Your task to perform on an android device: Open Maps and search for coffee Image 0: 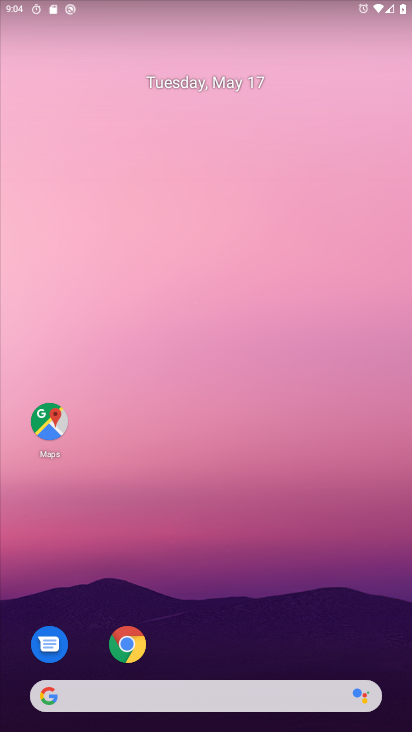
Step 0: click (48, 419)
Your task to perform on an android device: Open Maps and search for coffee Image 1: 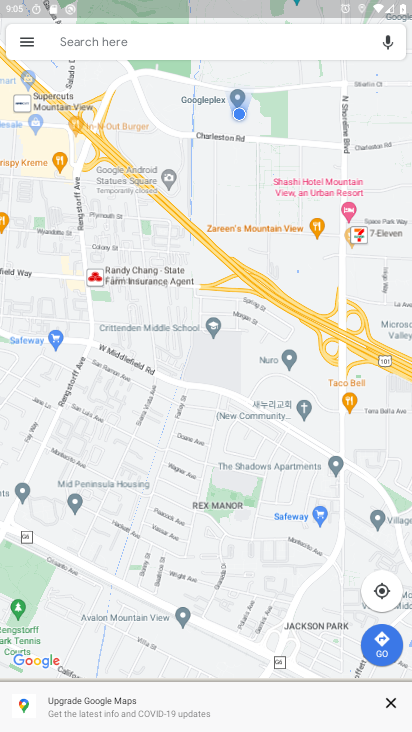
Step 1: click (101, 36)
Your task to perform on an android device: Open Maps and search for coffee Image 2: 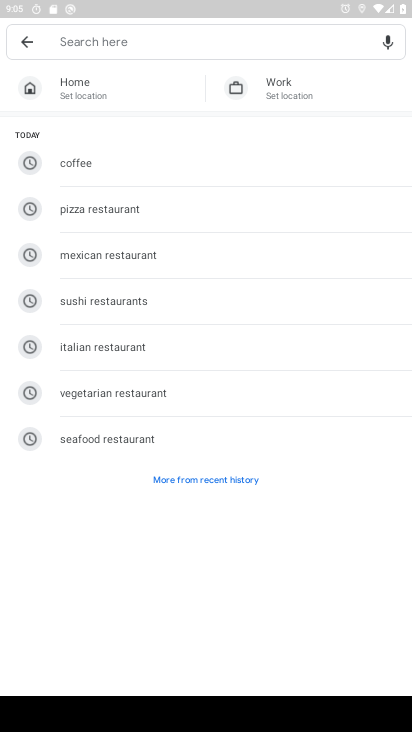
Step 2: click (102, 165)
Your task to perform on an android device: Open Maps and search for coffee Image 3: 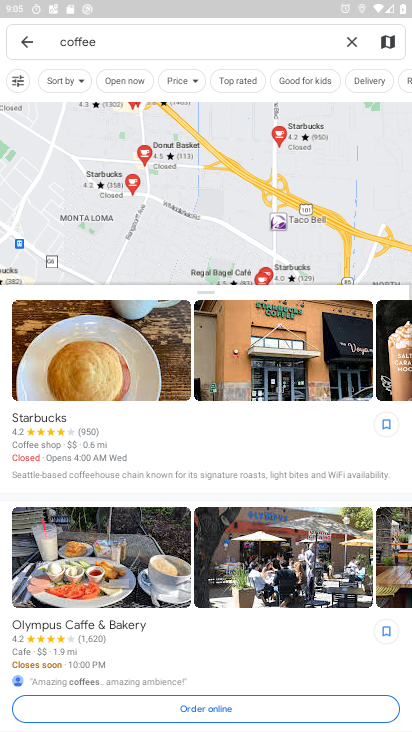
Step 3: task complete